Your task to perform on an android device: Go to battery settings Image 0: 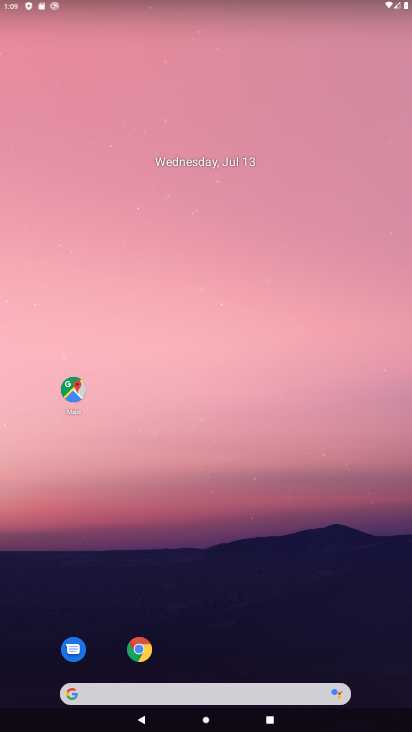
Step 0: drag from (183, 671) to (297, 75)
Your task to perform on an android device: Go to battery settings Image 1: 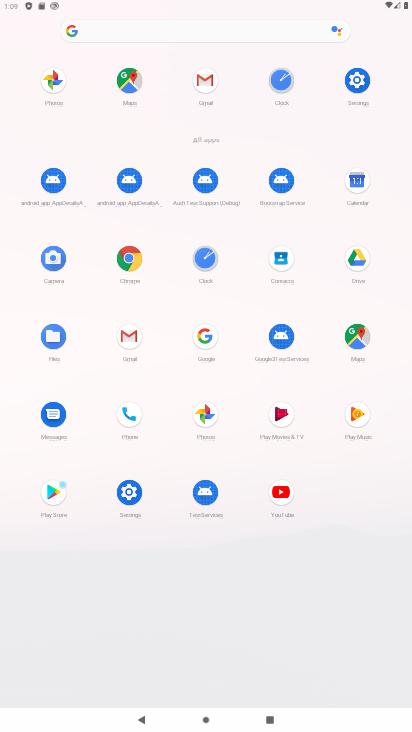
Step 1: click (122, 503)
Your task to perform on an android device: Go to battery settings Image 2: 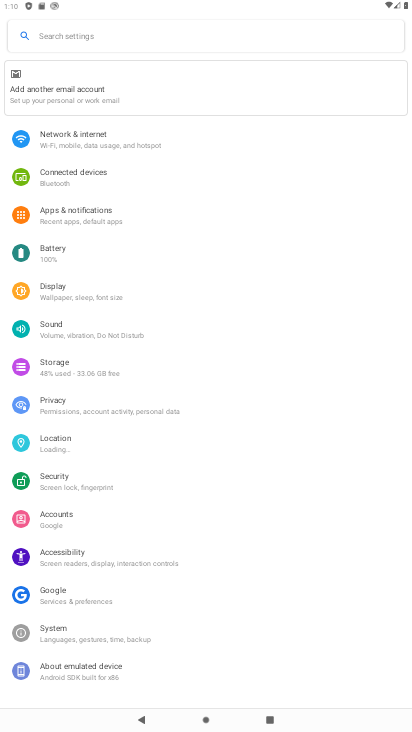
Step 2: click (97, 265)
Your task to perform on an android device: Go to battery settings Image 3: 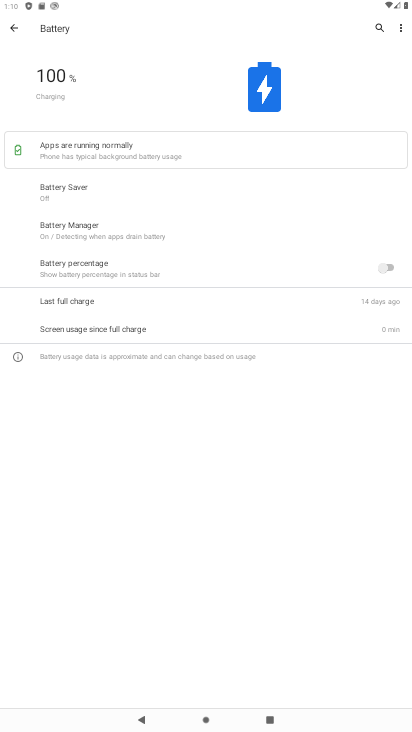
Step 3: task complete